Your task to perform on an android device: Go to Wikipedia Image 0: 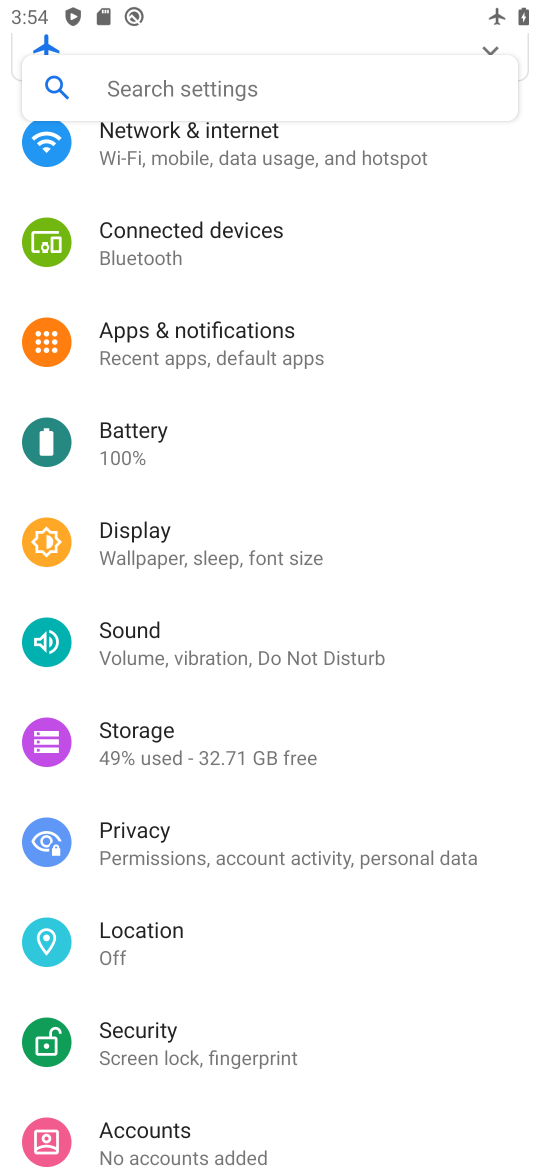
Step 0: task complete